Your task to perform on an android device: Show the shopping cart on amazon.com. Image 0: 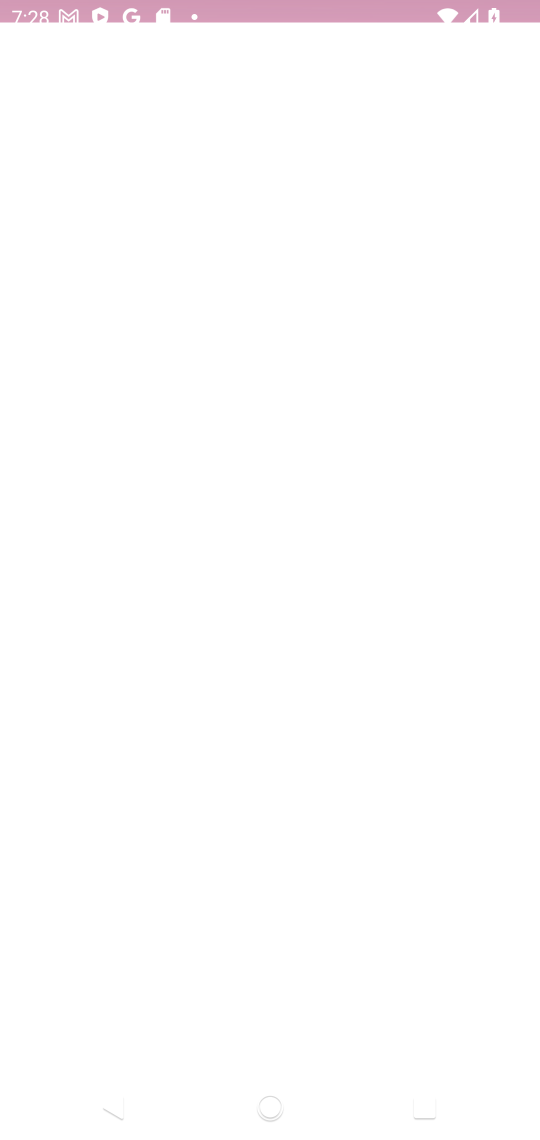
Step 0: press home button
Your task to perform on an android device: Show the shopping cart on amazon.com. Image 1: 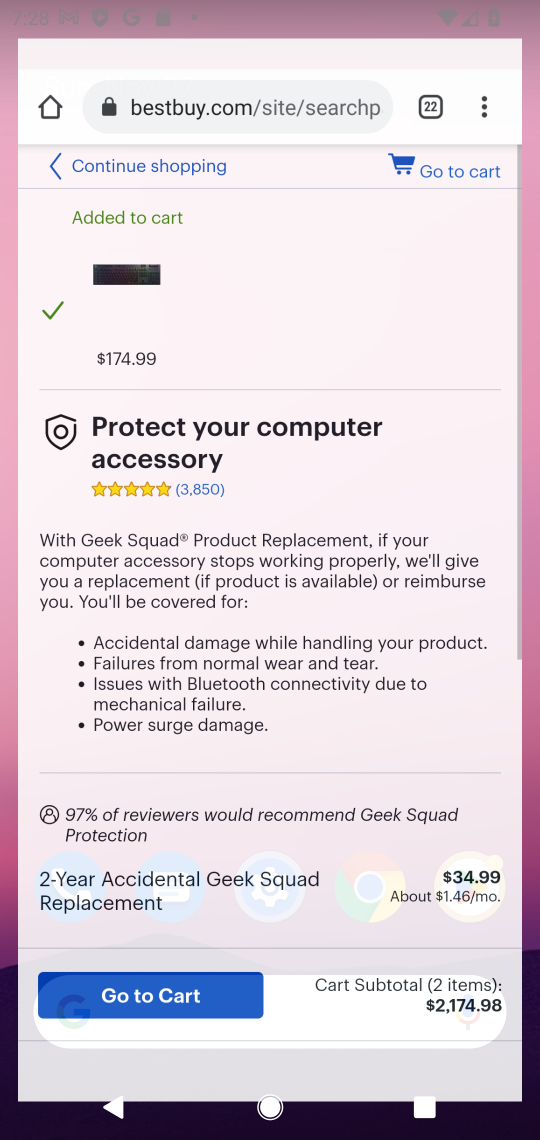
Step 1: click (266, 1008)
Your task to perform on an android device: Show the shopping cart on amazon.com. Image 2: 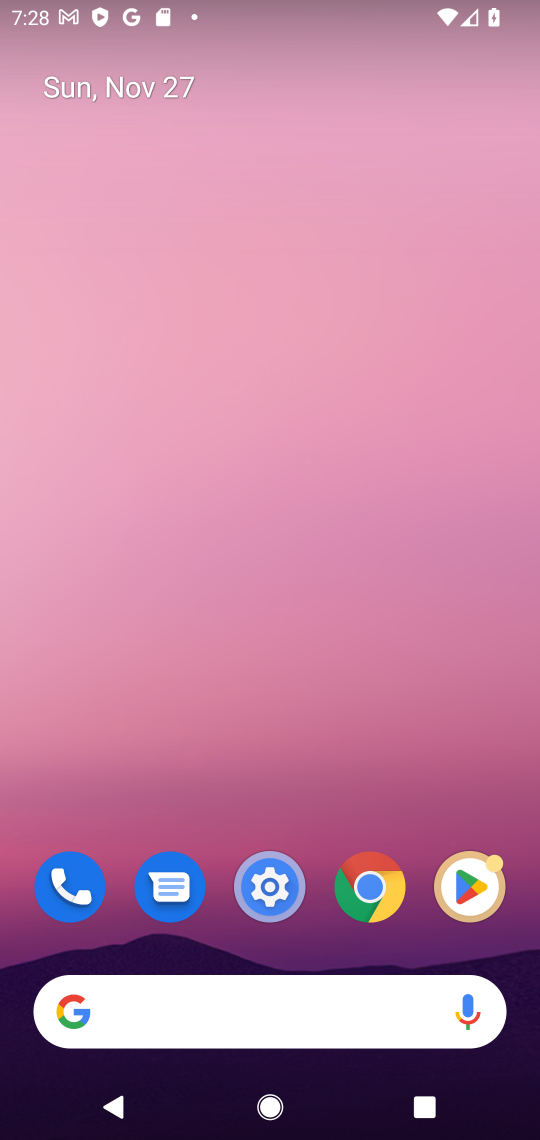
Step 2: click (314, 1035)
Your task to perform on an android device: Show the shopping cart on amazon.com. Image 3: 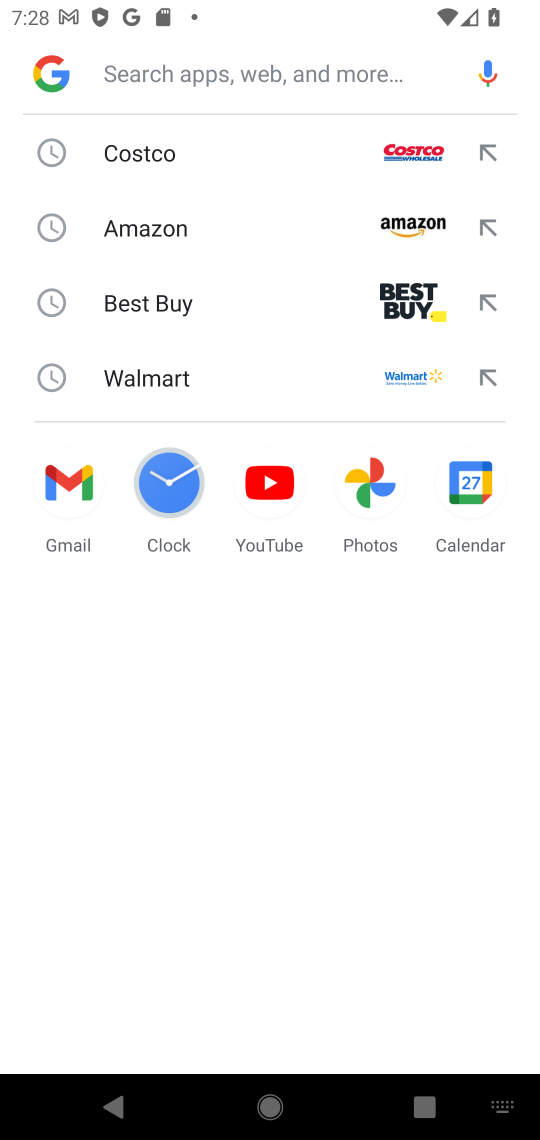
Step 3: click (330, 221)
Your task to perform on an android device: Show the shopping cart on amazon.com. Image 4: 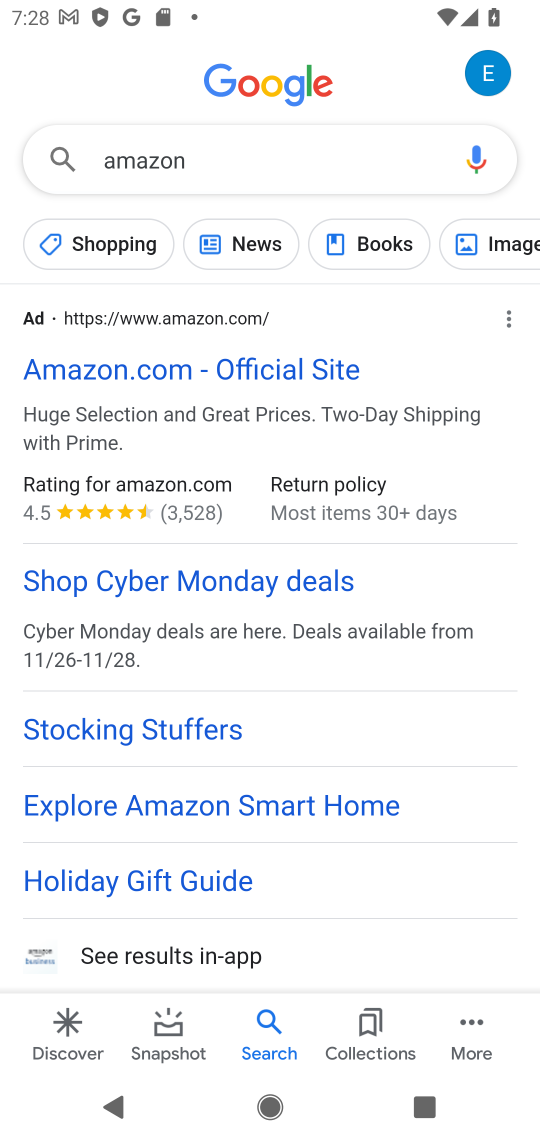
Step 4: click (265, 362)
Your task to perform on an android device: Show the shopping cart on amazon.com. Image 5: 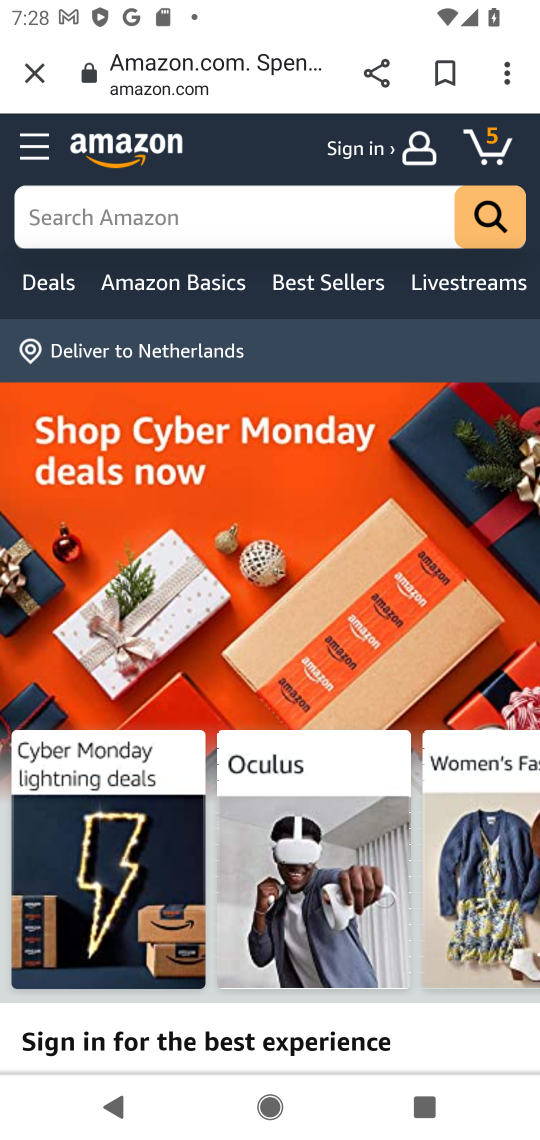
Step 5: click (193, 227)
Your task to perform on an android device: Show the shopping cart on amazon.com. Image 6: 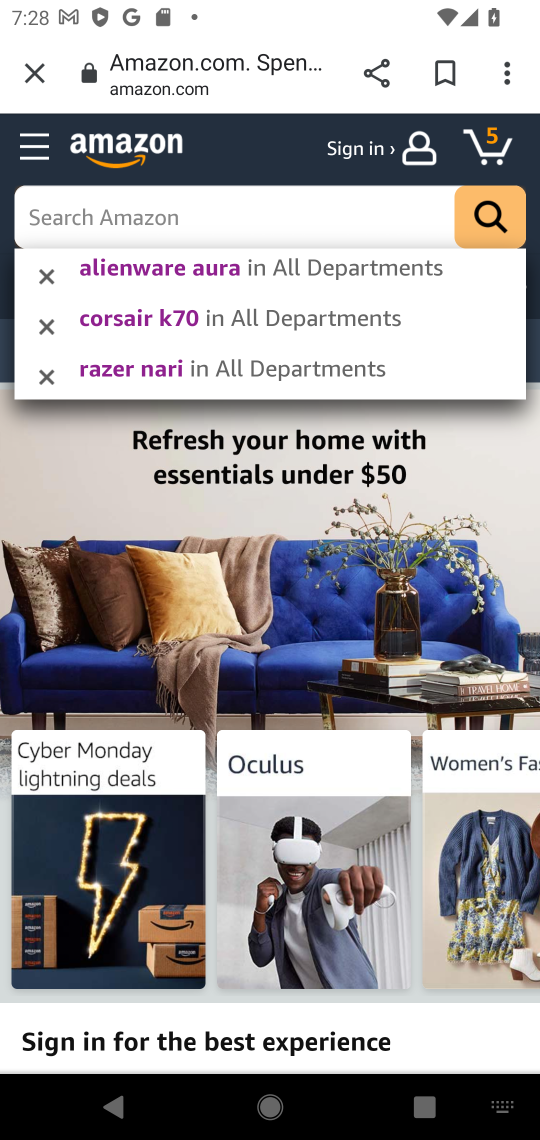
Step 6: click (496, 148)
Your task to perform on an android device: Show the shopping cart on amazon.com. Image 7: 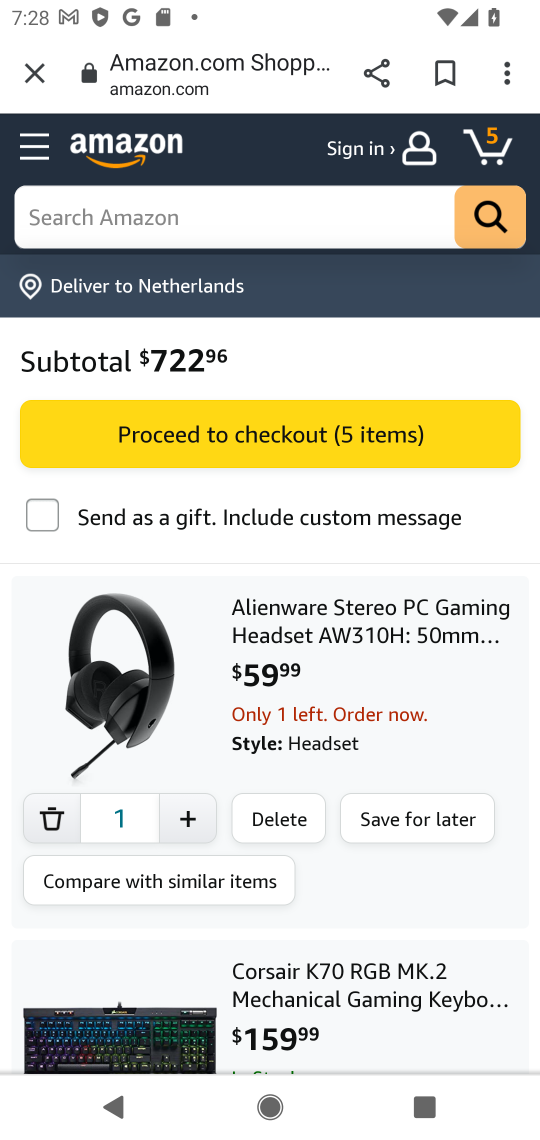
Step 7: click (283, 809)
Your task to perform on an android device: Show the shopping cart on amazon.com. Image 8: 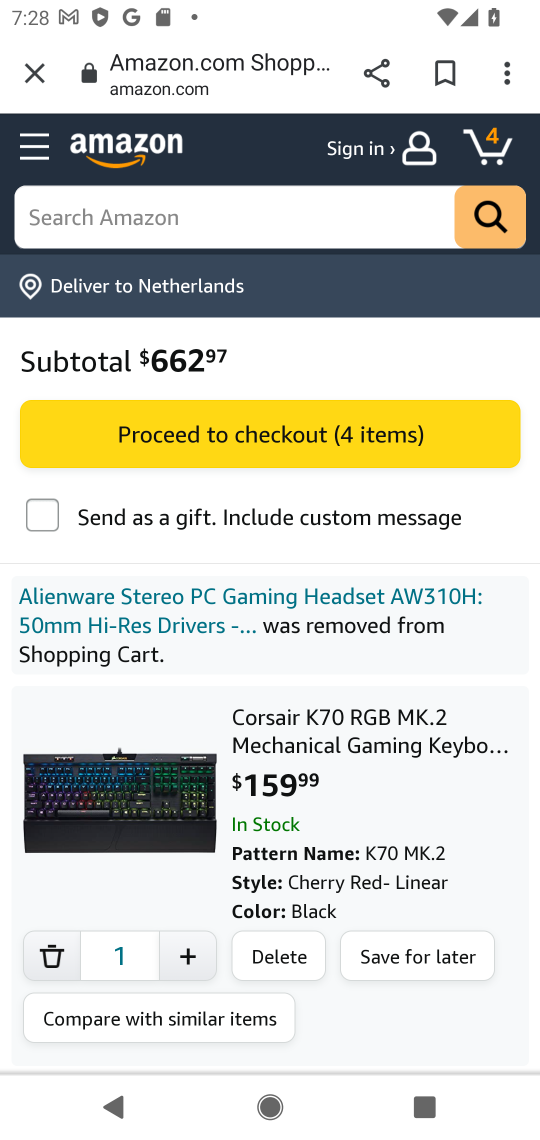
Step 8: click (283, 962)
Your task to perform on an android device: Show the shopping cart on amazon.com. Image 9: 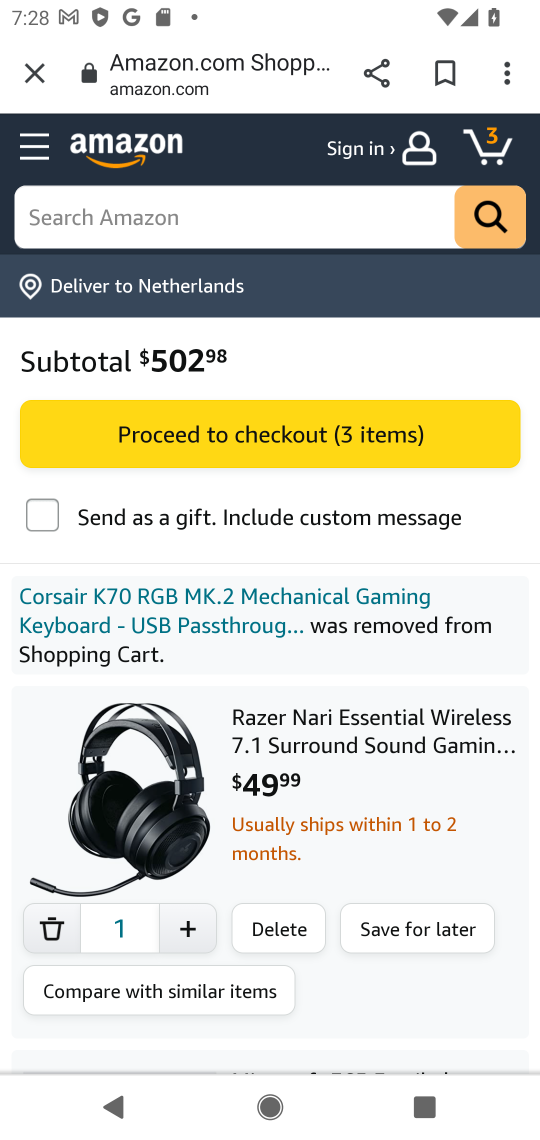
Step 9: click (272, 929)
Your task to perform on an android device: Show the shopping cart on amazon.com. Image 10: 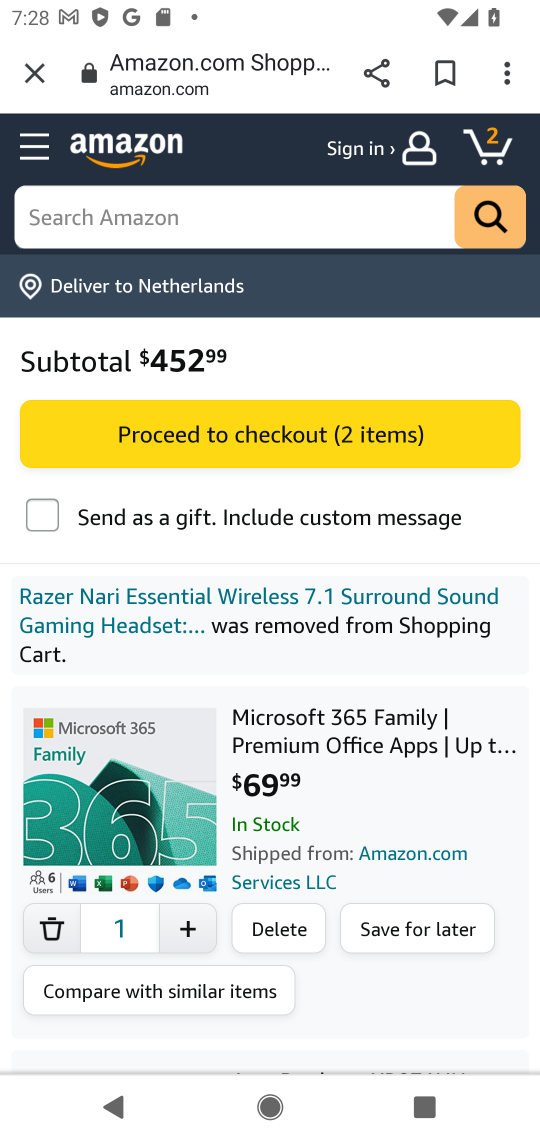
Step 10: click (272, 929)
Your task to perform on an android device: Show the shopping cart on amazon.com. Image 11: 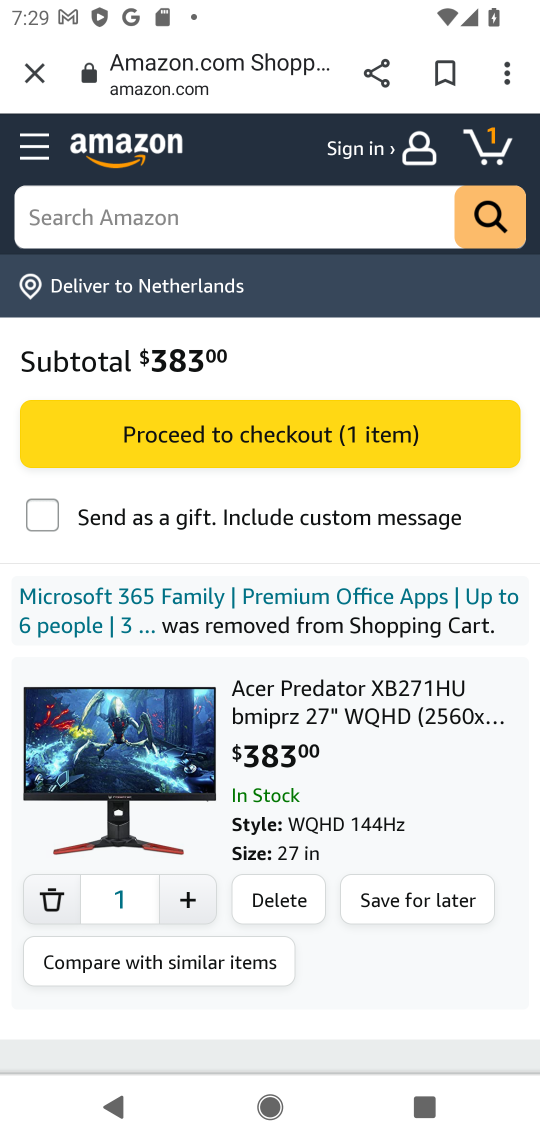
Step 11: click (282, 898)
Your task to perform on an android device: Show the shopping cart on amazon.com. Image 12: 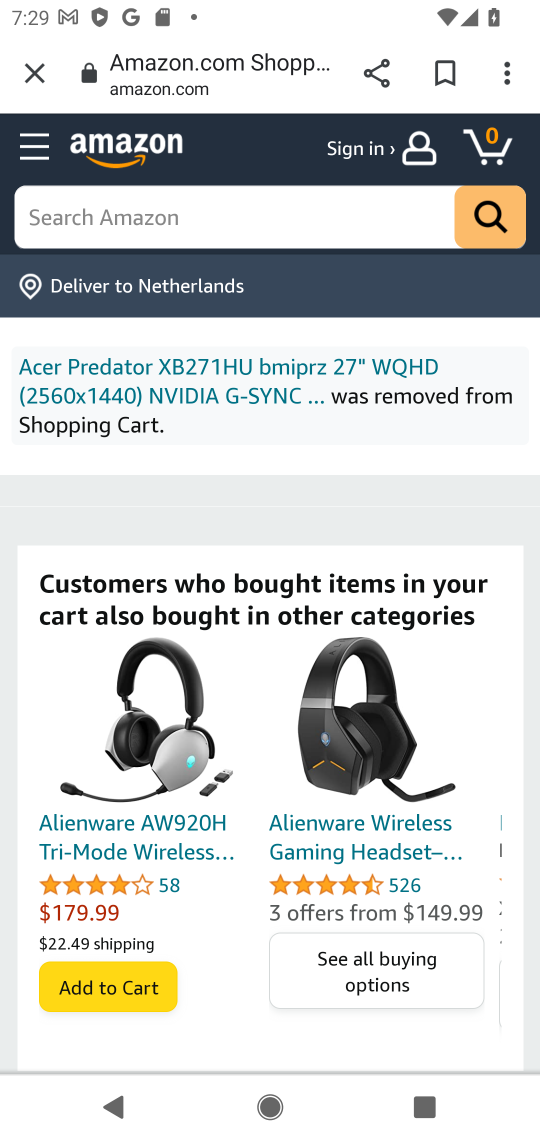
Step 12: task complete